Your task to perform on an android device: all mails in gmail Image 0: 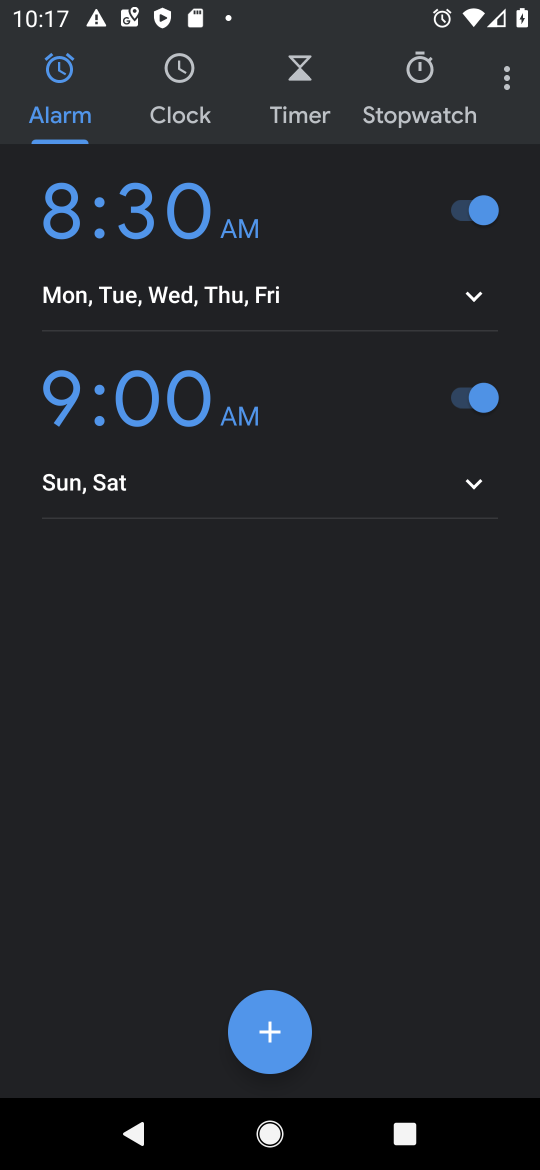
Step 0: press home button
Your task to perform on an android device: all mails in gmail Image 1: 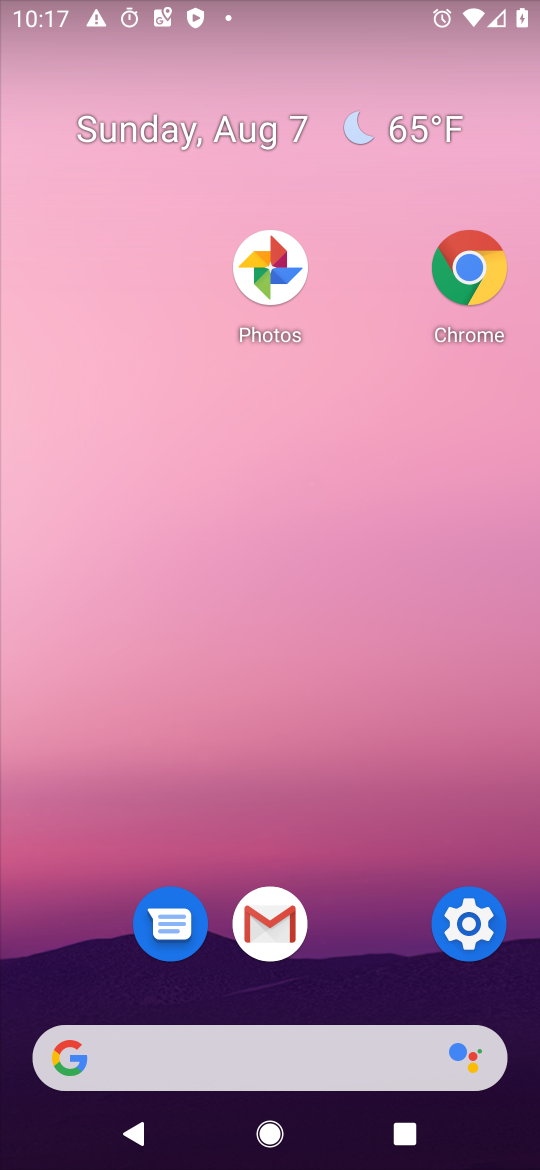
Step 1: drag from (403, 878) to (416, 290)
Your task to perform on an android device: all mails in gmail Image 2: 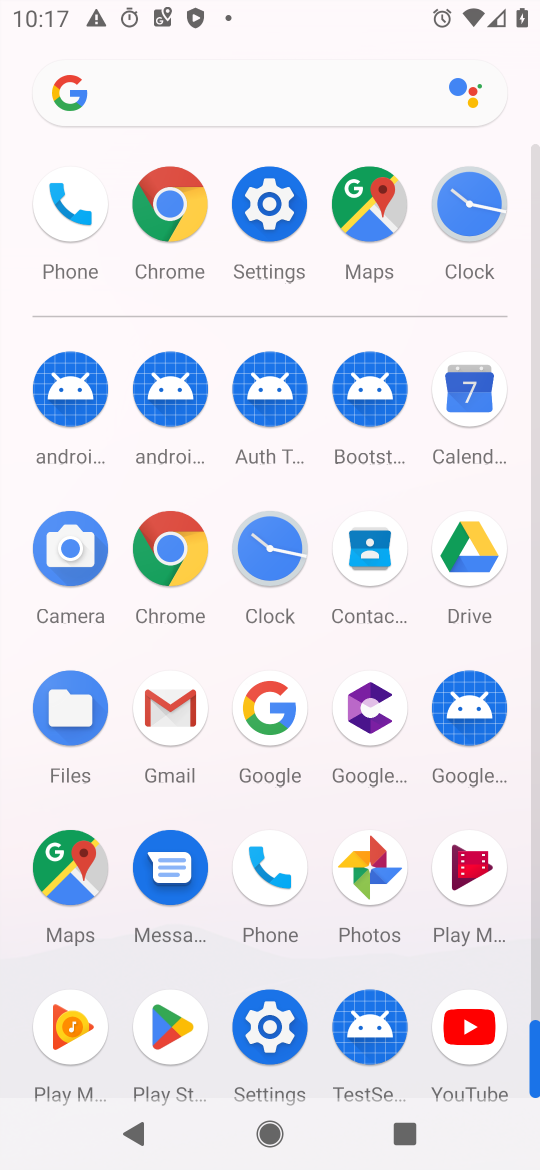
Step 2: click (163, 697)
Your task to perform on an android device: all mails in gmail Image 3: 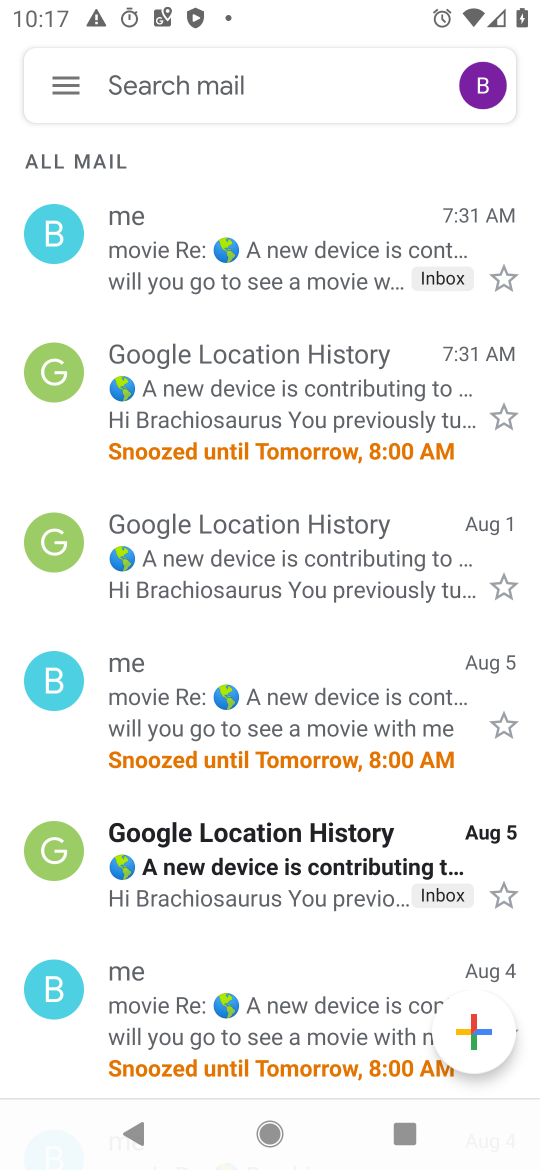
Step 3: click (66, 98)
Your task to perform on an android device: all mails in gmail Image 4: 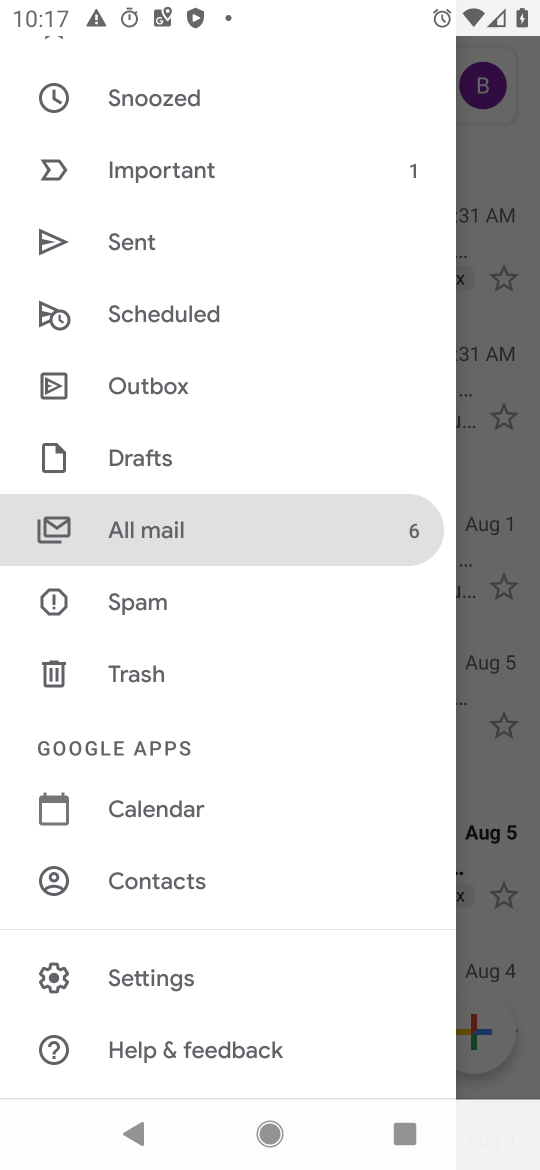
Step 4: click (152, 526)
Your task to perform on an android device: all mails in gmail Image 5: 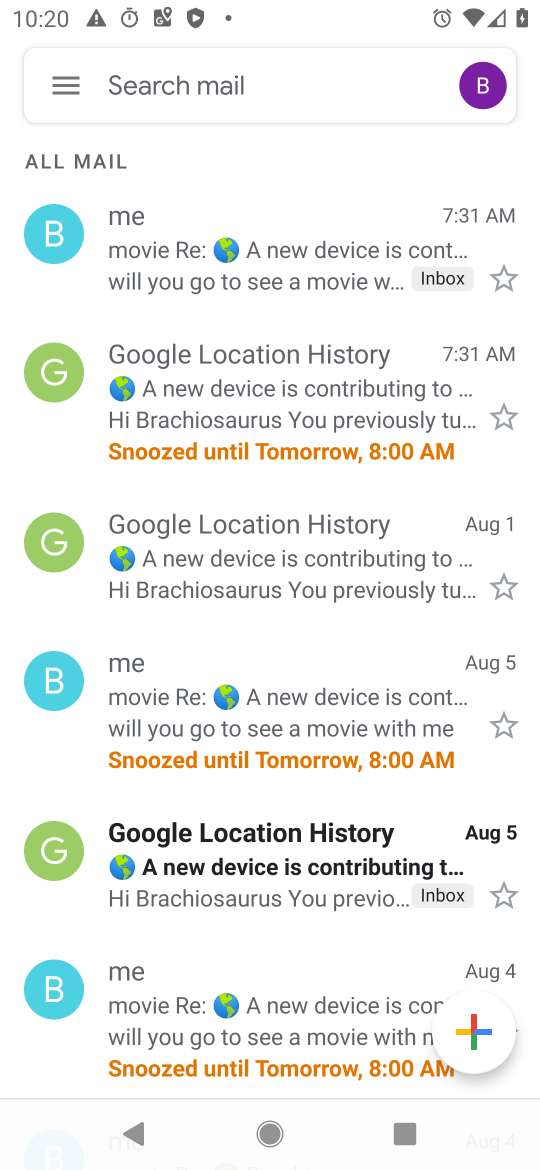
Step 5: task complete